Your task to perform on an android device: add a contact in the contacts app Image 0: 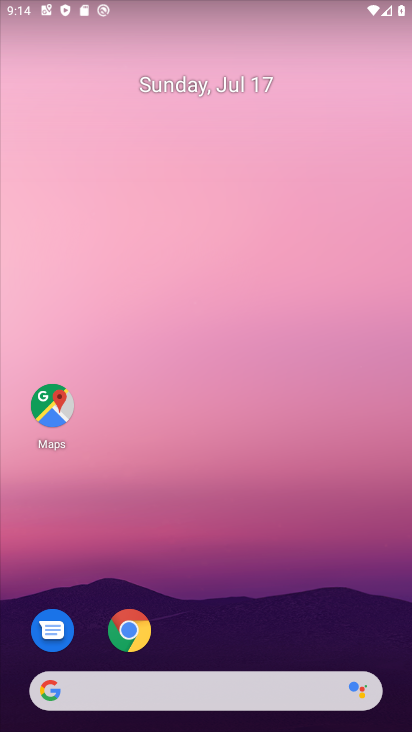
Step 0: drag from (128, 693) to (94, 38)
Your task to perform on an android device: add a contact in the contacts app Image 1: 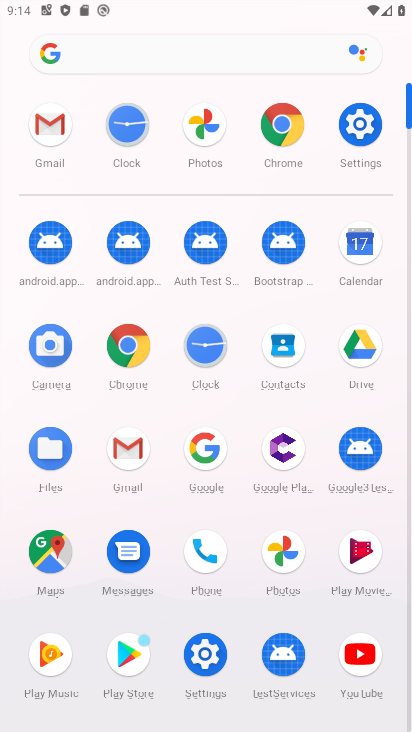
Step 1: click (283, 343)
Your task to perform on an android device: add a contact in the contacts app Image 2: 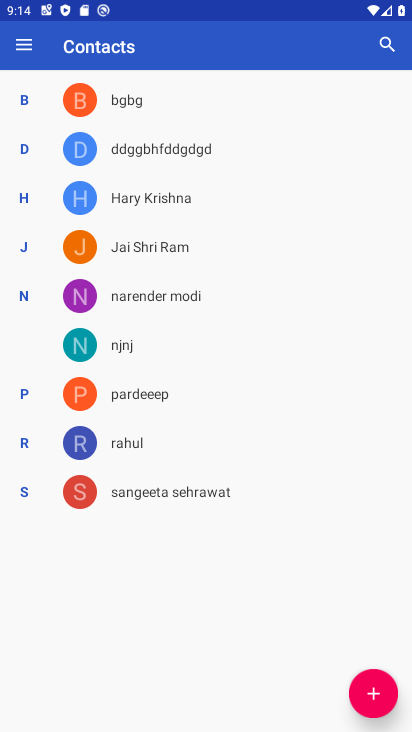
Step 2: click (366, 700)
Your task to perform on an android device: add a contact in the contacts app Image 3: 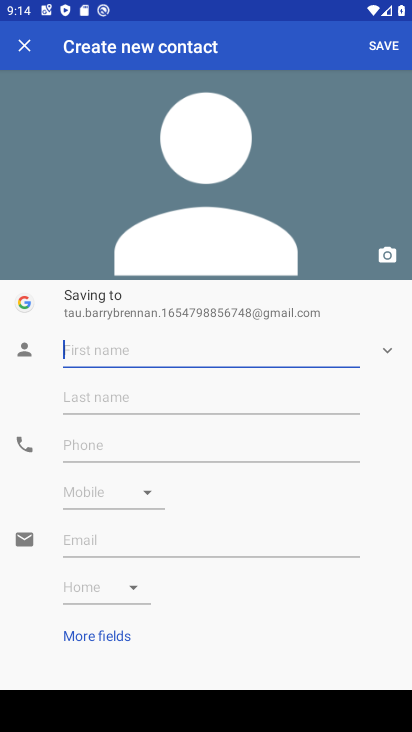
Step 3: type "sofi"
Your task to perform on an android device: add a contact in the contacts app Image 4: 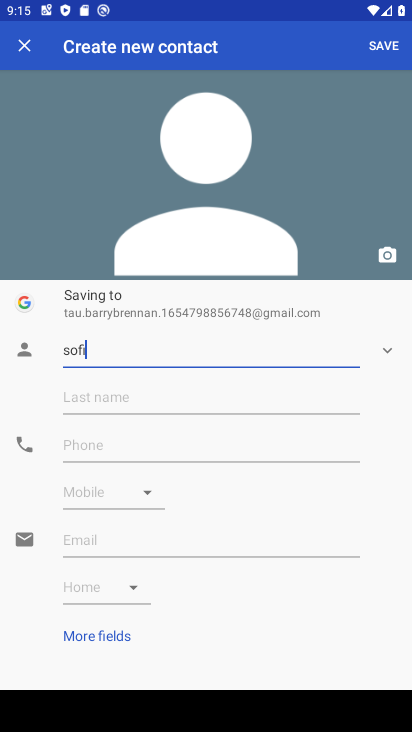
Step 4: click (302, 439)
Your task to perform on an android device: add a contact in the contacts app Image 5: 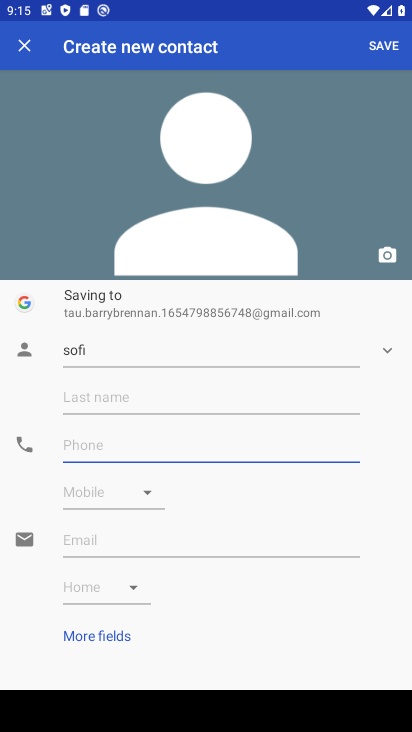
Step 5: type "9897675656"
Your task to perform on an android device: add a contact in the contacts app Image 6: 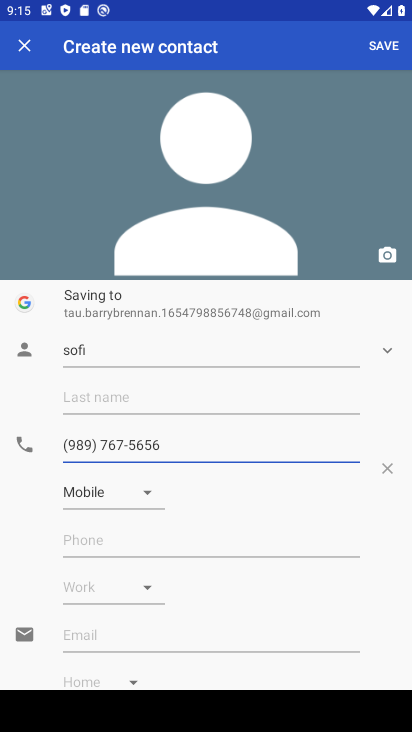
Step 6: click (397, 42)
Your task to perform on an android device: add a contact in the contacts app Image 7: 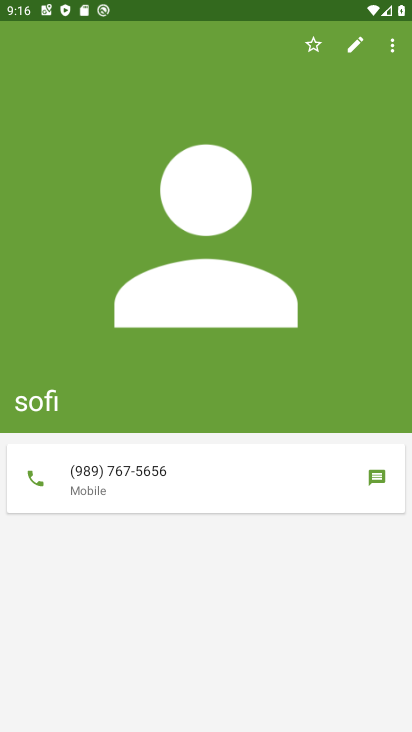
Step 7: task complete